Your task to perform on an android device: Open the Play Movies app and select the watchlist tab. Image 0: 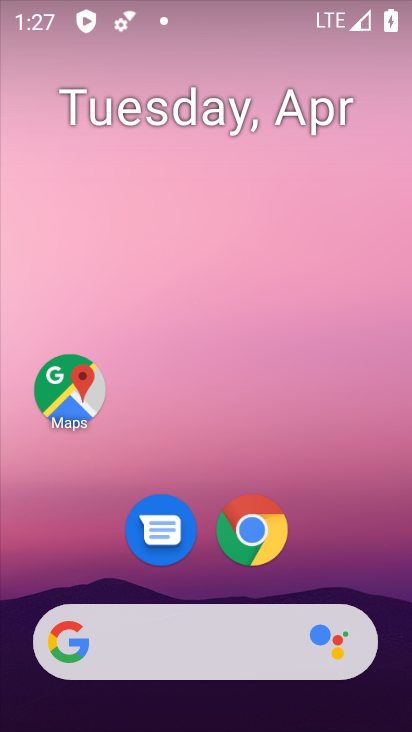
Step 0: drag from (200, 709) to (169, 63)
Your task to perform on an android device: Open the Play Movies app and select the watchlist tab. Image 1: 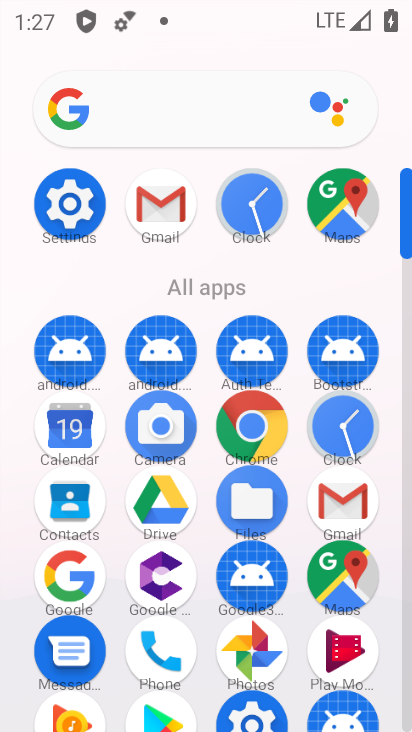
Step 1: click (340, 653)
Your task to perform on an android device: Open the Play Movies app and select the watchlist tab. Image 2: 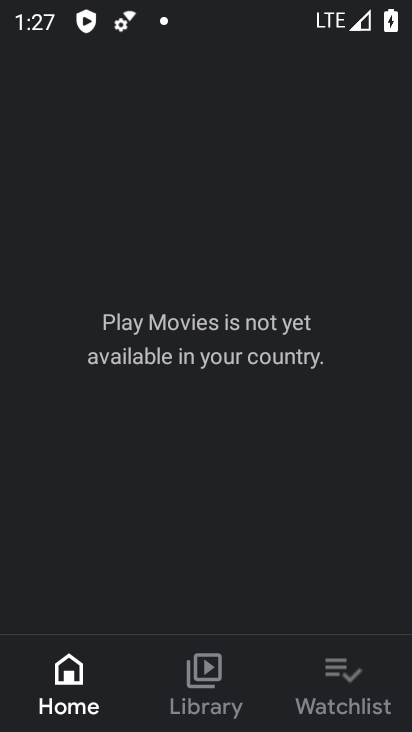
Step 2: click (334, 688)
Your task to perform on an android device: Open the Play Movies app and select the watchlist tab. Image 3: 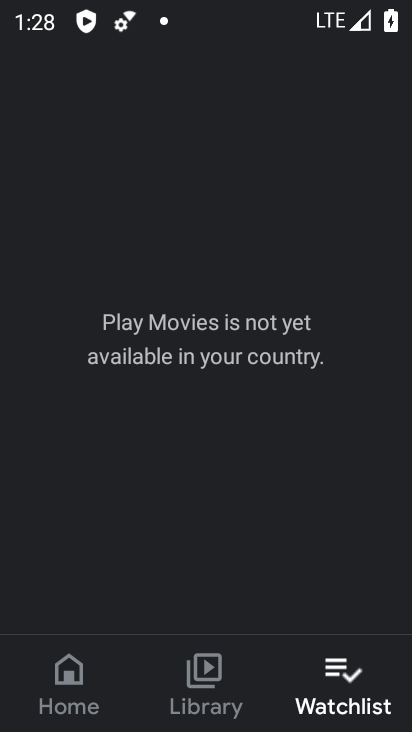
Step 3: task complete